Your task to perform on an android device: create a new album in the google photos Image 0: 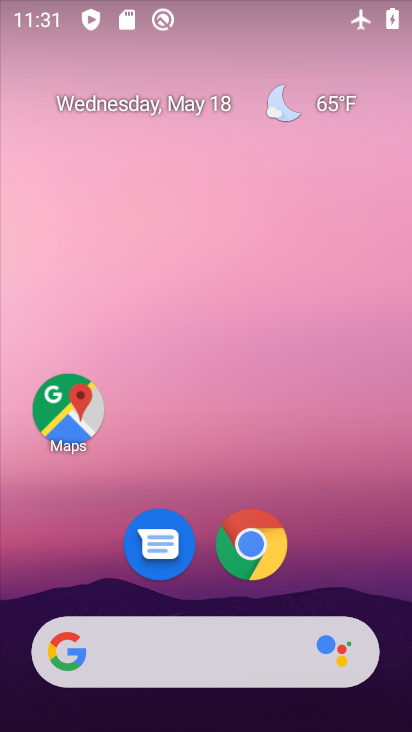
Step 0: drag from (359, 562) to (347, 110)
Your task to perform on an android device: create a new album in the google photos Image 1: 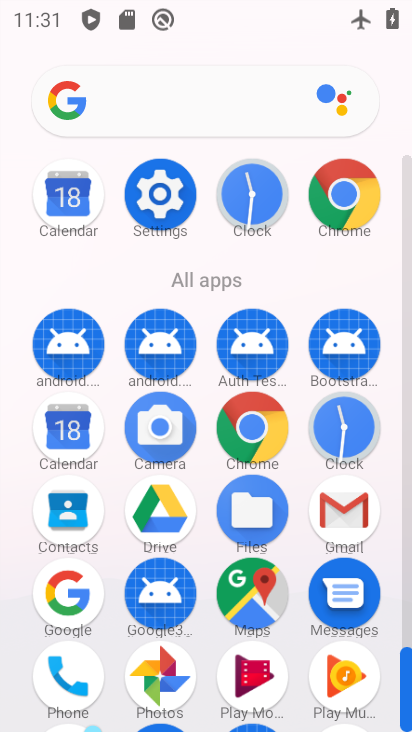
Step 1: drag from (298, 636) to (299, 322)
Your task to perform on an android device: create a new album in the google photos Image 2: 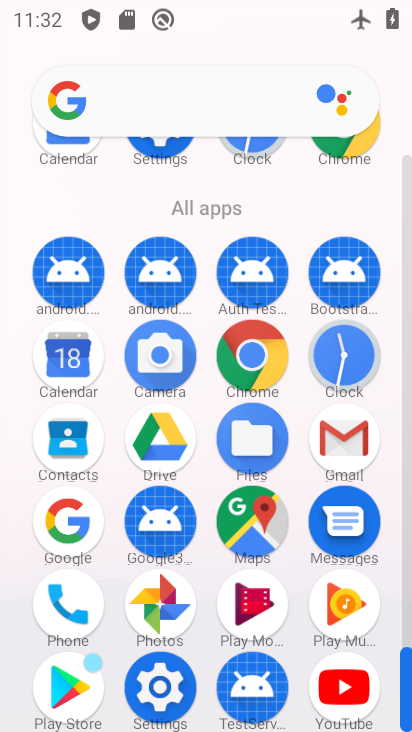
Step 2: click (149, 588)
Your task to perform on an android device: create a new album in the google photos Image 3: 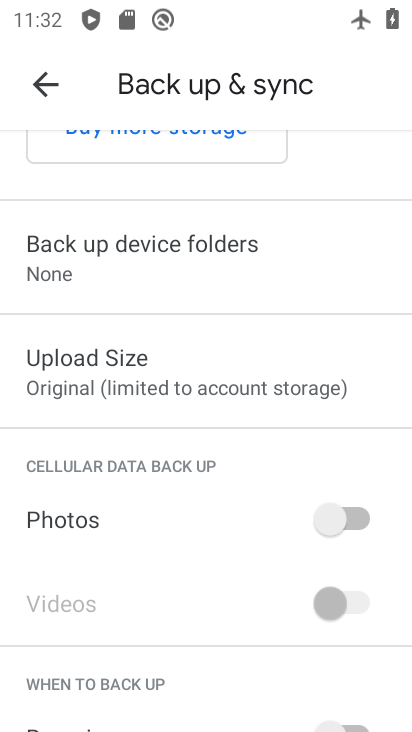
Step 3: click (60, 90)
Your task to perform on an android device: create a new album in the google photos Image 4: 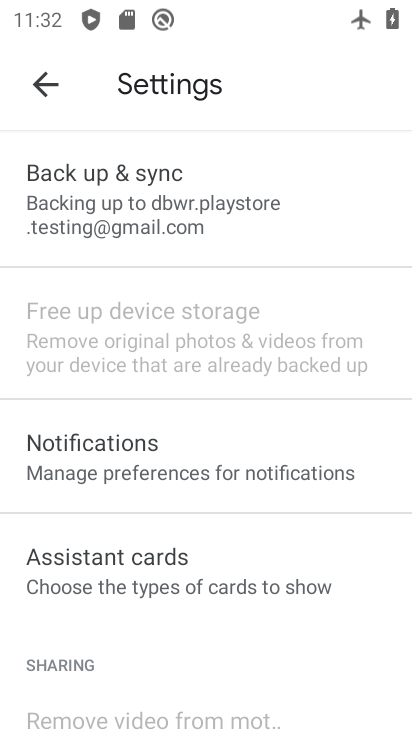
Step 4: click (50, 73)
Your task to perform on an android device: create a new album in the google photos Image 5: 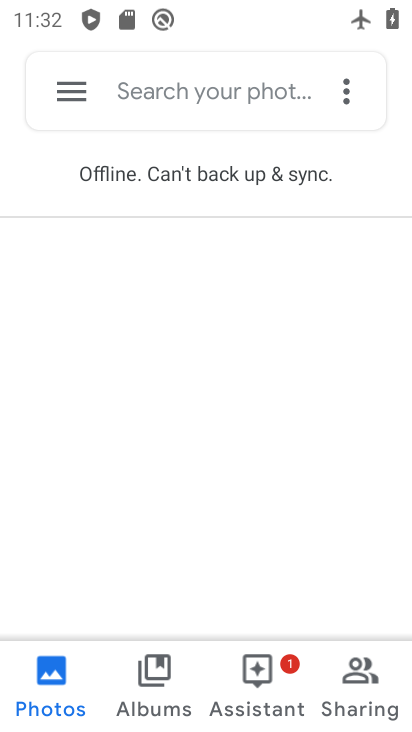
Step 5: click (347, 90)
Your task to perform on an android device: create a new album in the google photos Image 6: 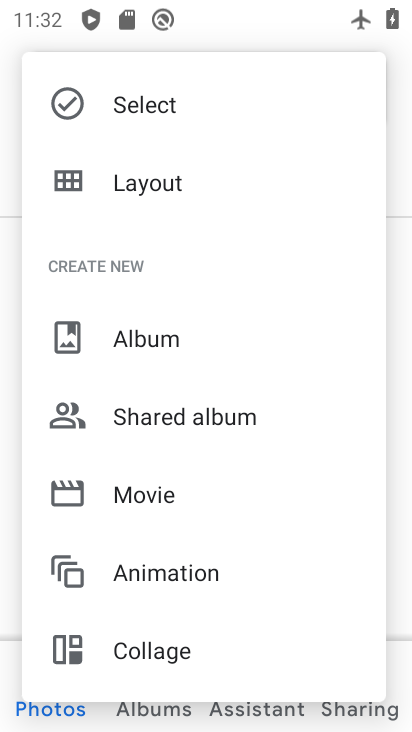
Step 6: click (143, 348)
Your task to perform on an android device: create a new album in the google photos Image 7: 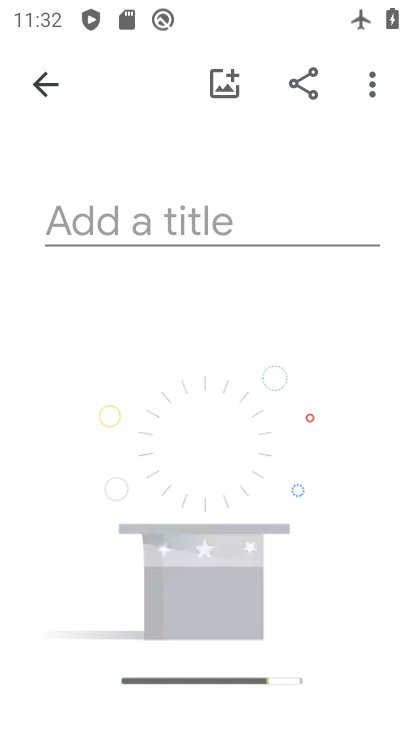
Step 7: click (205, 238)
Your task to perform on an android device: create a new album in the google photos Image 8: 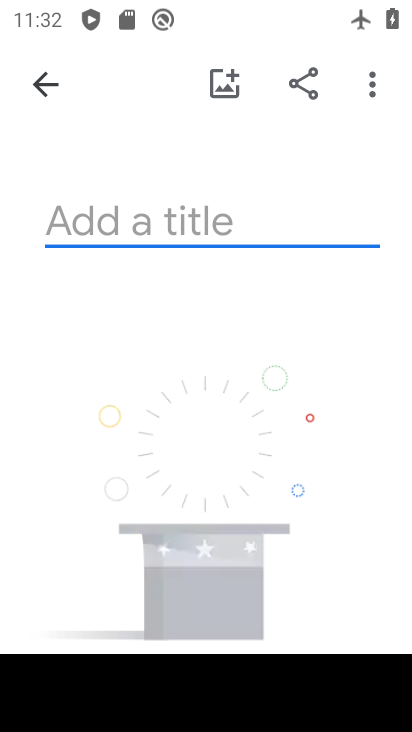
Step 8: type "fav"
Your task to perform on an android device: create a new album in the google photos Image 9: 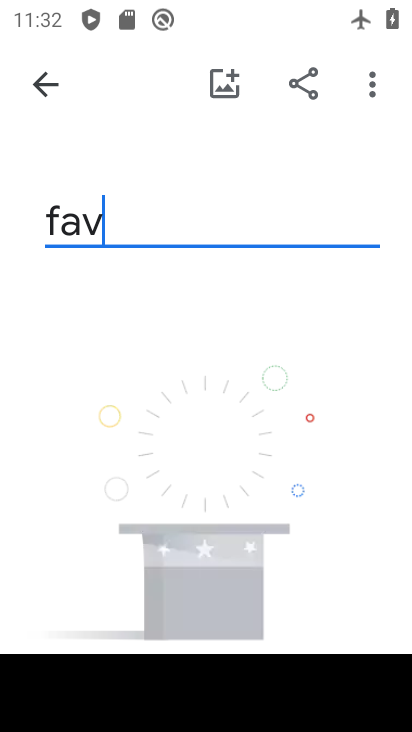
Step 9: drag from (329, 564) to (332, 230)
Your task to perform on an android device: create a new album in the google photos Image 10: 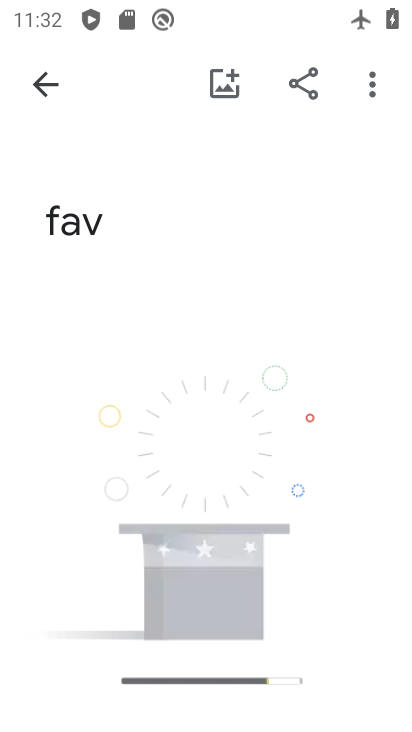
Step 10: drag from (249, 509) to (251, 287)
Your task to perform on an android device: create a new album in the google photos Image 11: 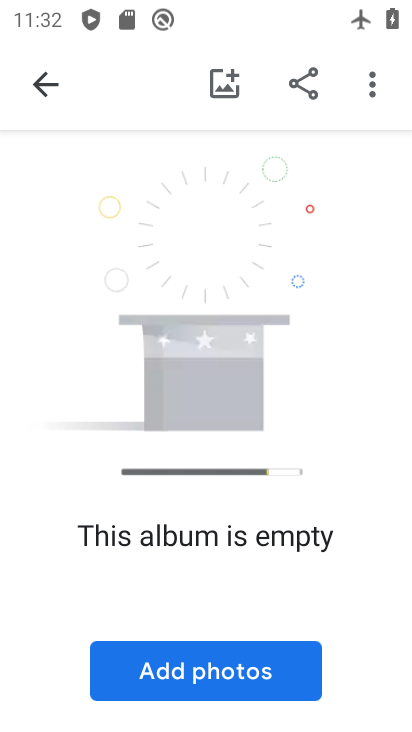
Step 11: click (235, 680)
Your task to perform on an android device: create a new album in the google photos Image 12: 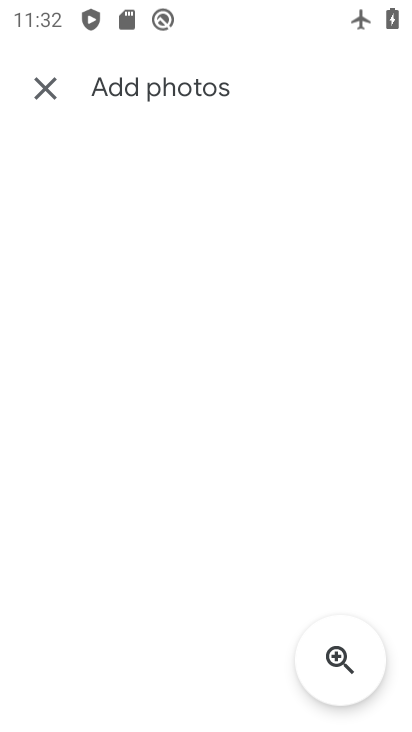
Step 12: task complete